Your task to perform on an android device: Search for seafood restaurants on Google Maps Image 0: 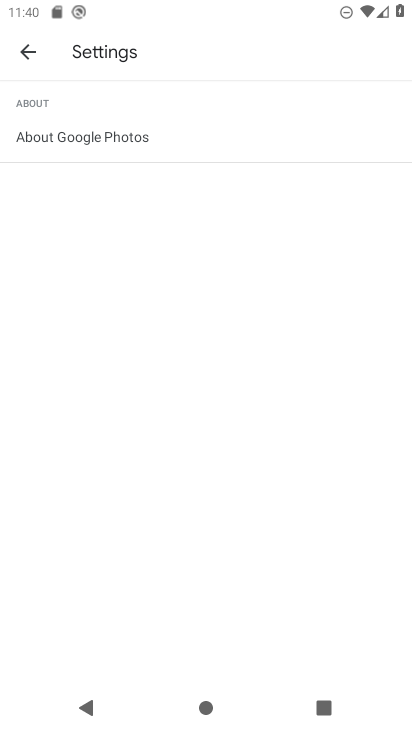
Step 0: press back button
Your task to perform on an android device: Search for seafood restaurants on Google Maps Image 1: 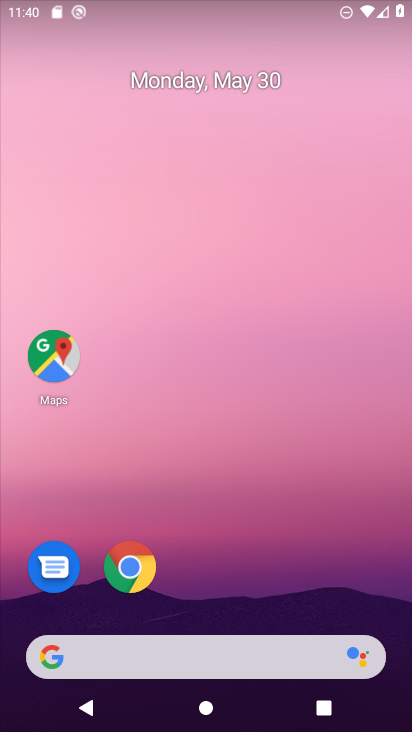
Step 1: drag from (296, 535) to (214, 3)
Your task to perform on an android device: Search for seafood restaurants on Google Maps Image 2: 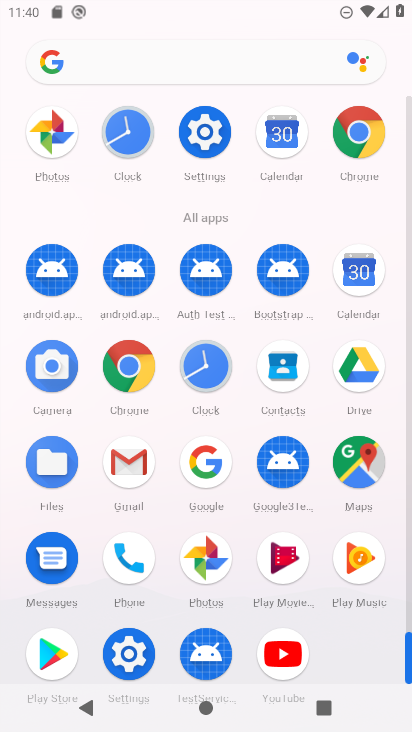
Step 2: drag from (19, 551) to (16, 191)
Your task to perform on an android device: Search for seafood restaurants on Google Maps Image 3: 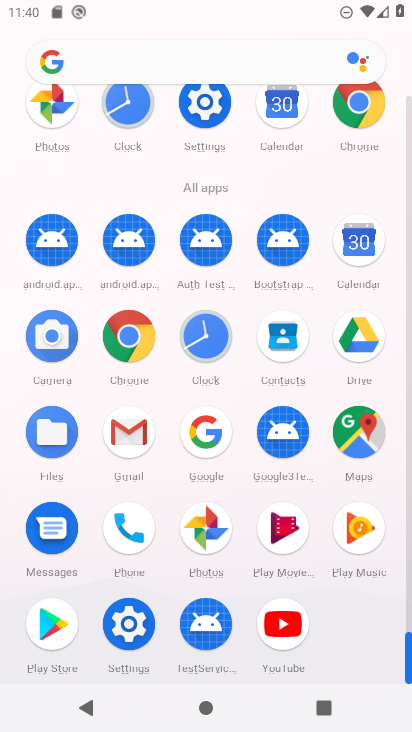
Step 3: click (357, 430)
Your task to perform on an android device: Search for seafood restaurants on Google Maps Image 4: 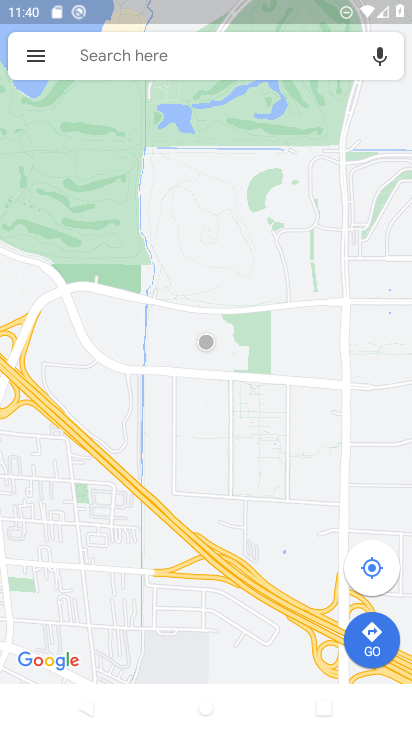
Step 4: click (194, 63)
Your task to perform on an android device: Search for seafood restaurants on Google Maps Image 5: 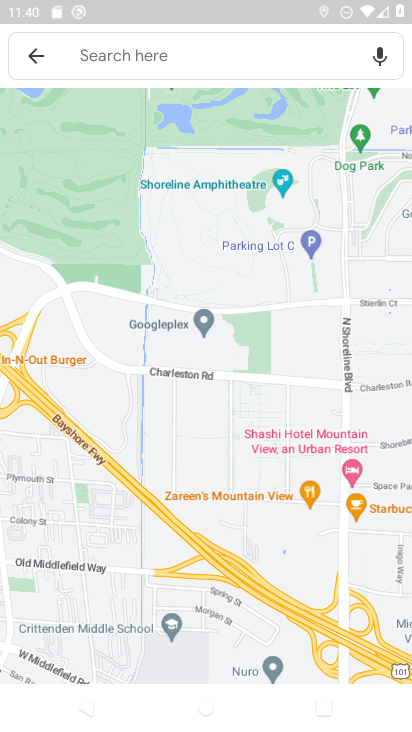
Step 5: click (188, 57)
Your task to perform on an android device: Search for seafood restaurants on Google Maps Image 6: 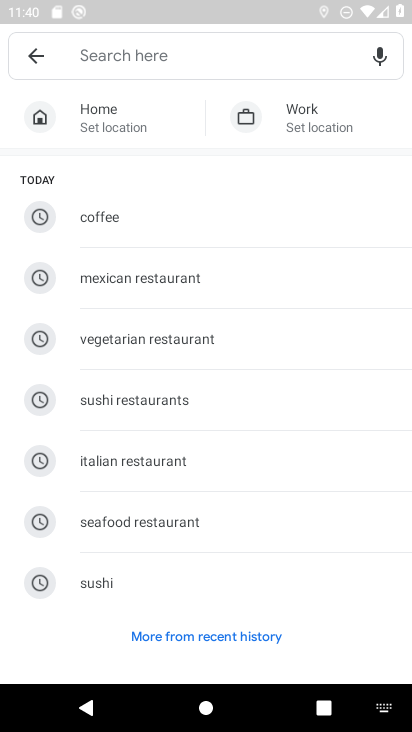
Step 6: click (195, 513)
Your task to perform on an android device: Search for seafood restaurants on Google Maps Image 7: 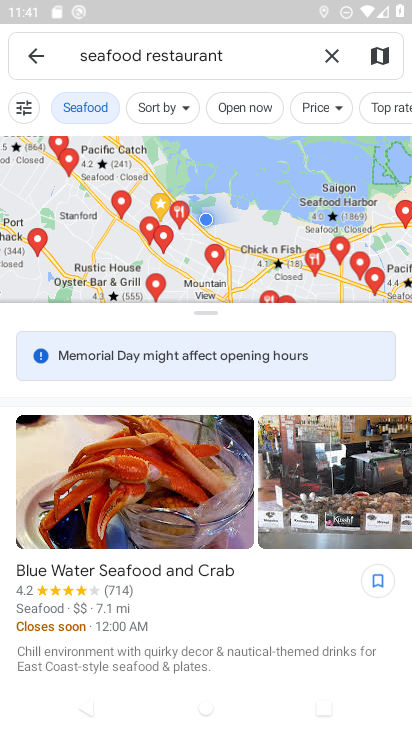
Step 7: task complete